Your task to perform on an android device: delete a single message in the gmail app Image 0: 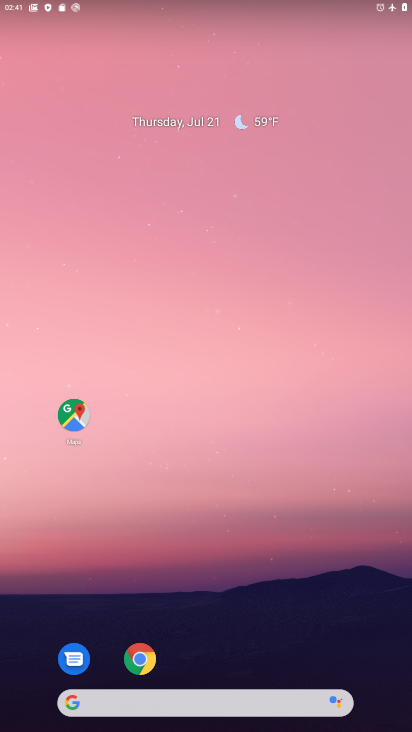
Step 0: drag from (227, 450) to (214, 113)
Your task to perform on an android device: delete a single message in the gmail app Image 1: 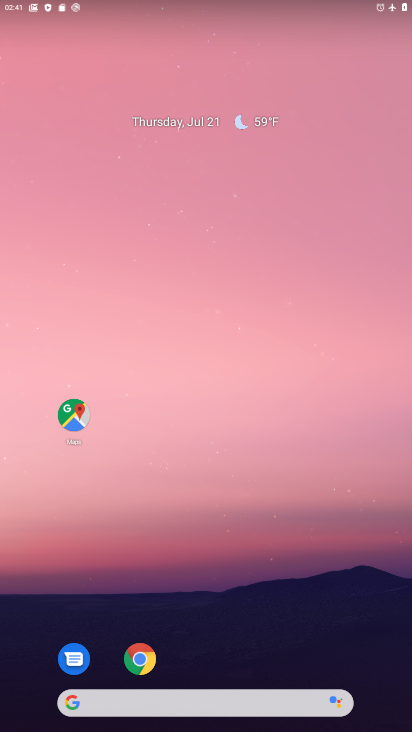
Step 1: drag from (296, 635) to (244, 121)
Your task to perform on an android device: delete a single message in the gmail app Image 2: 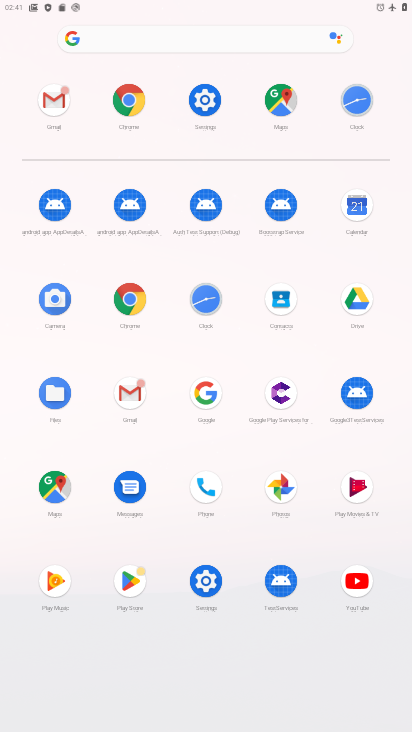
Step 2: click (57, 102)
Your task to perform on an android device: delete a single message in the gmail app Image 3: 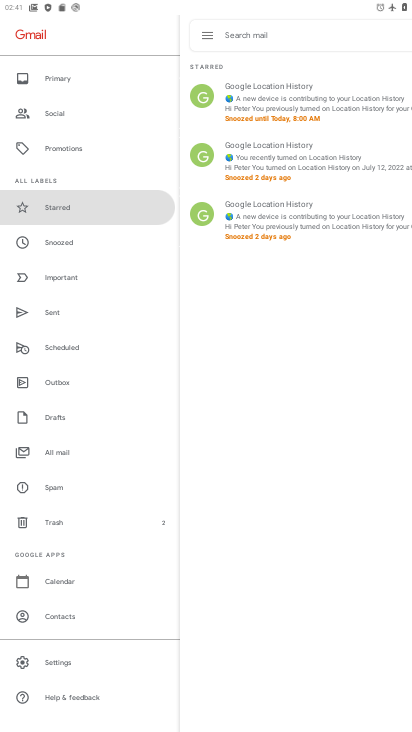
Step 3: click (43, 450)
Your task to perform on an android device: delete a single message in the gmail app Image 4: 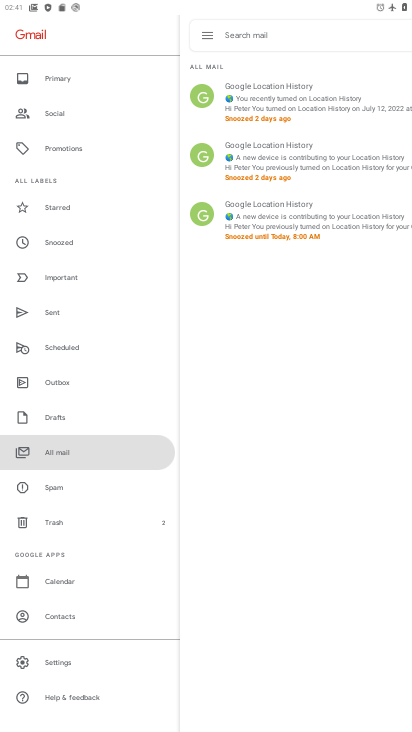
Step 4: drag from (311, 283) to (302, 659)
Your task to perform on an android device: delete a single message in the gmail app Image 5: 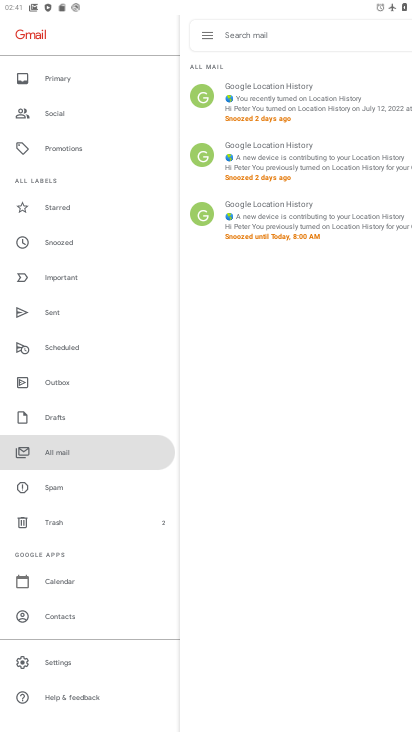
Step 5: click (358, 208)
Your task to perform on an android device: delete a single message in the gmail app Image 6: 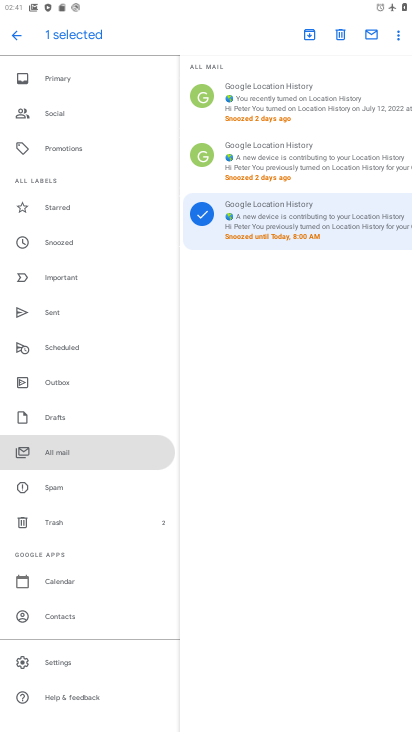
Step 6: click (344, 32)
Your task to perform on an android device: delete a single message in the gmail app Image 7: 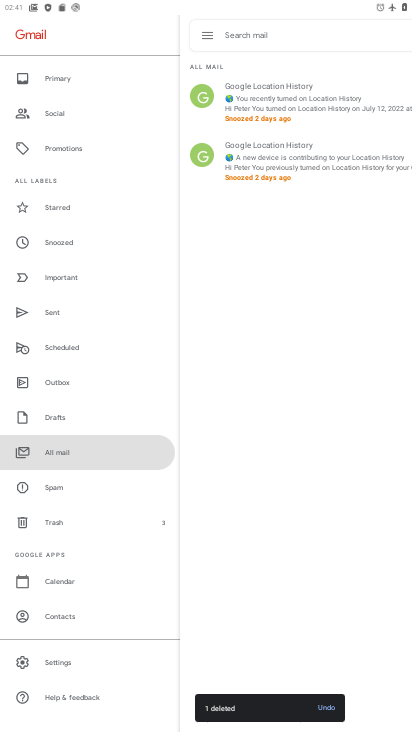
Step 7: task complete